Your task to perform on an android device: turn on the 12-hour format for clock Image 0: 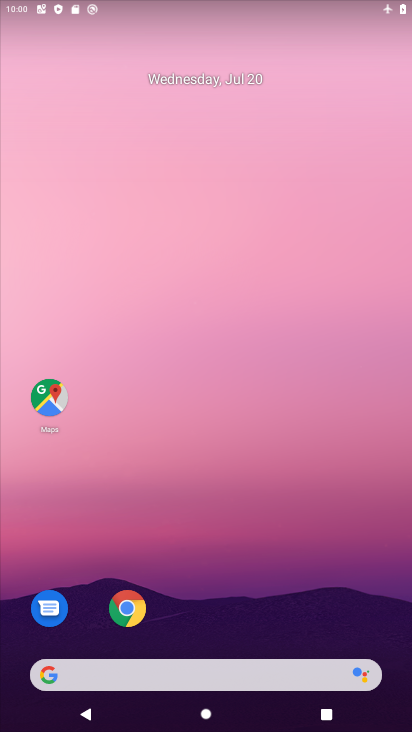
Step 0: drag from (266, 673) to (282, 286)
Your task to perform on an android device: turn on the 12-hour format for clock Image 1: 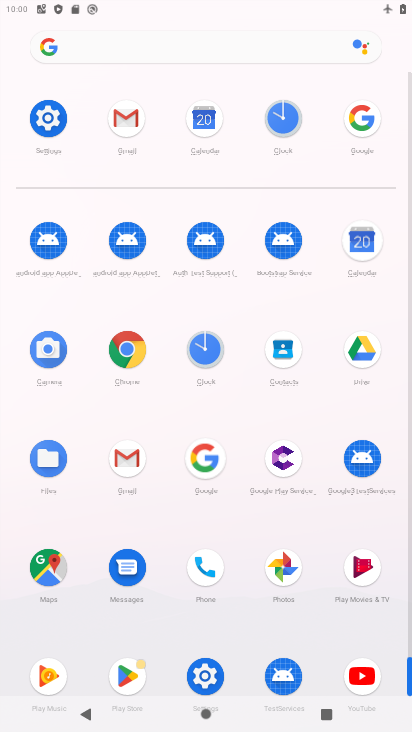
Step 1: click (200, 342)
Your task to perform on an android device: turn on the 12-hour format for clock Image 2: 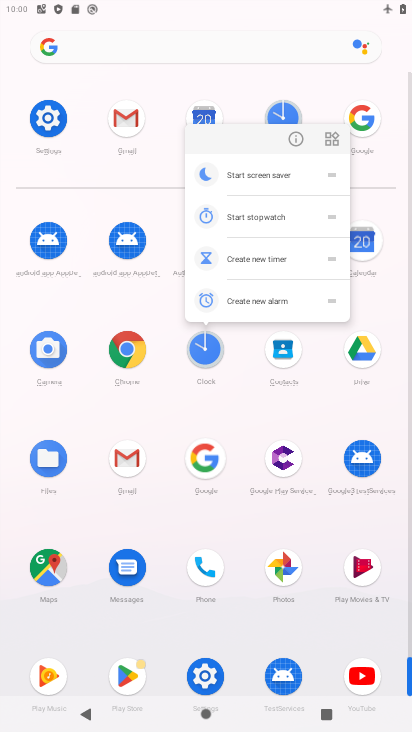
Step 2: click (200, 342)
Your task to perform on an android device: turn on the 12-hour format for clock Image 3: 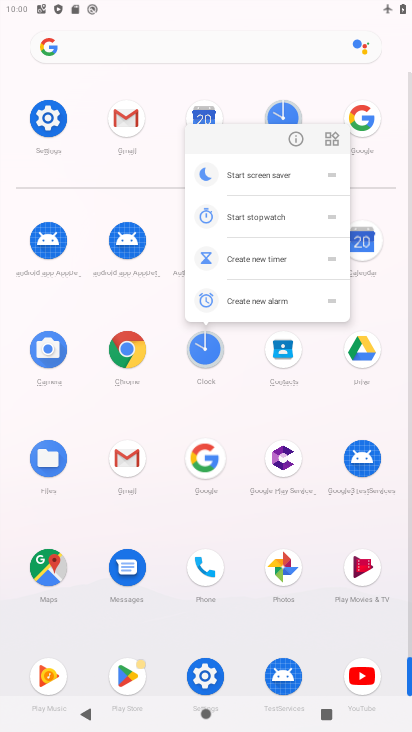
Step 3: click (200, 342)
Your task to perform on an android device: turn on the 12-hour format for clock Image 4: 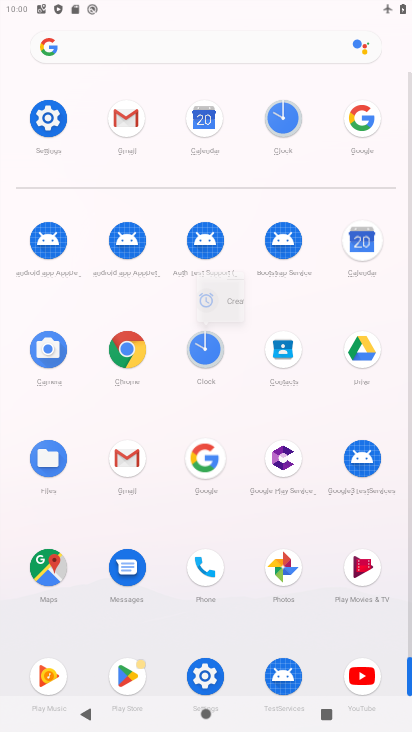
Step 4: click (200, 342)
Your task to perform on an android device: turn on the 12-hour format for clock Image 5: 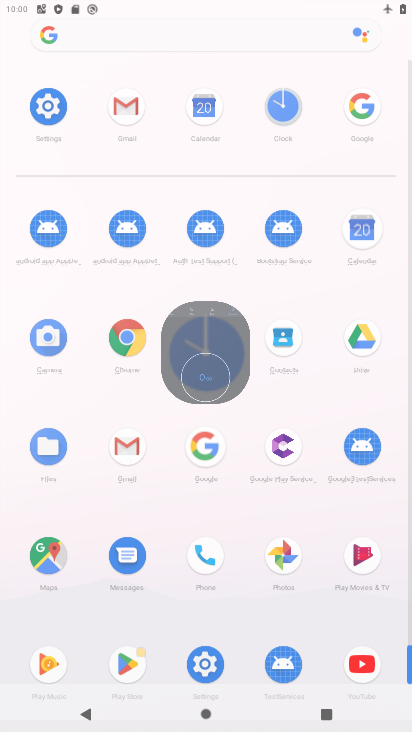
Step 5: click (200, 342)
Your task to perform on an android device: turn on the 12-hour format for clock Image 6: 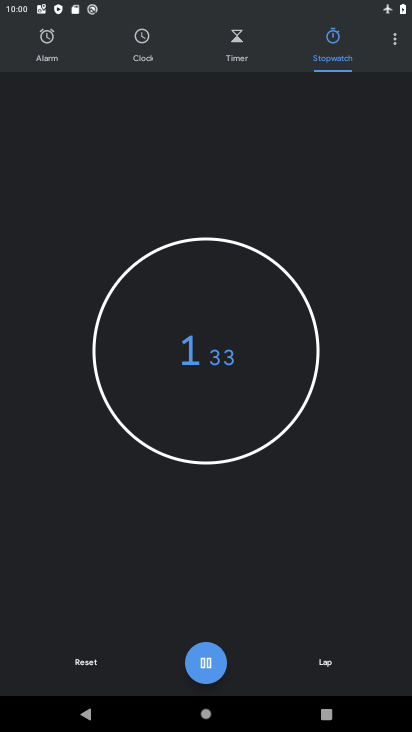
Step 6: task complete